Your task to perform on an android device: What's the weather? Image 0: 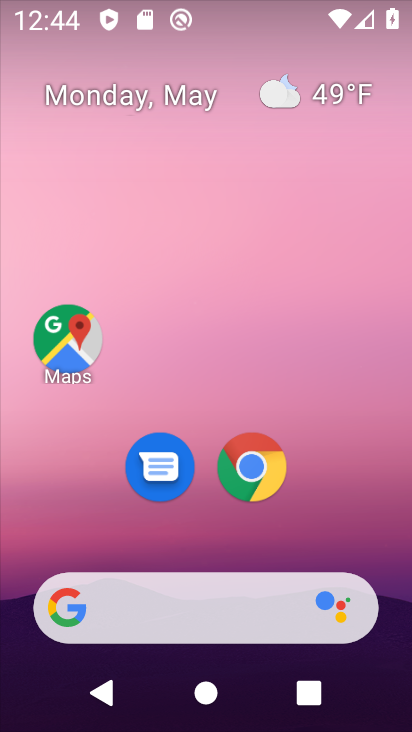
Step 0: press home button
Your task to perform on an android device: What's the weather? Image 1: 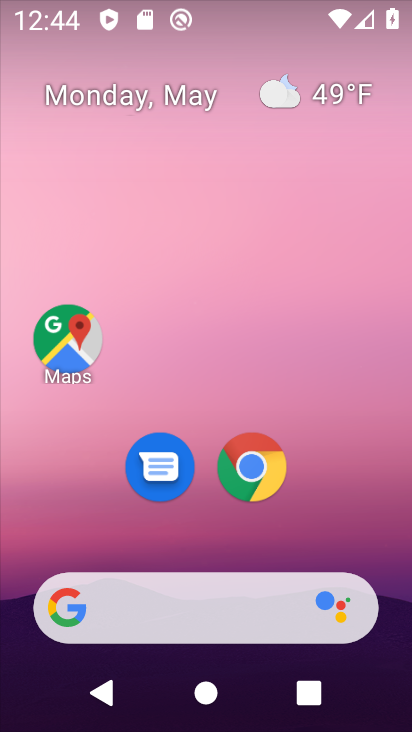
Step 1: drag from (353, 535) to (322, 51)
Your task to perform on an android device: What's the weather? Image 2: 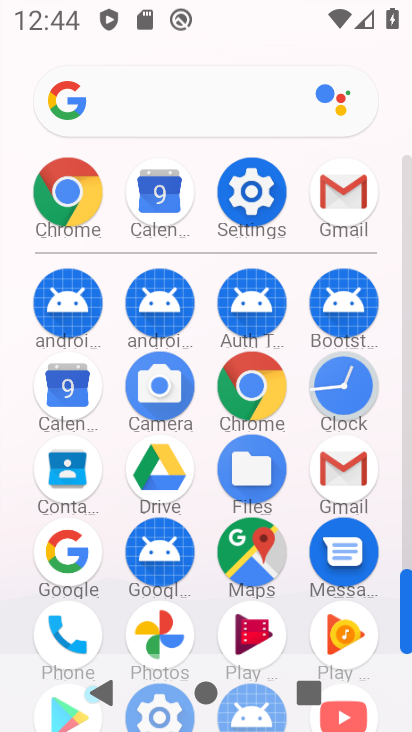
Step 2: click (77, 193)
Your task to perform on an android device: What's the weather? Image 3: 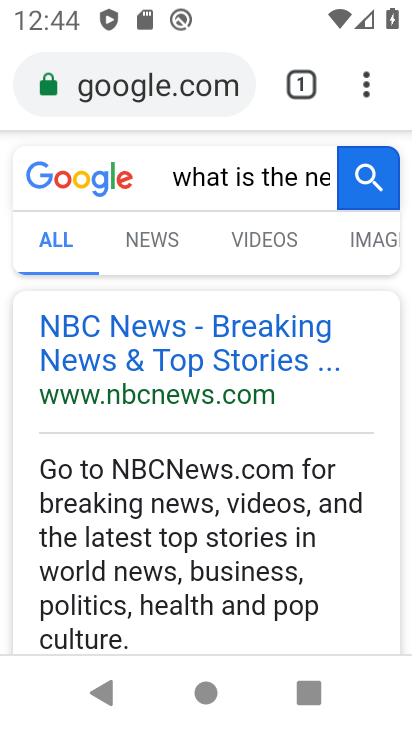
Step 3: click (201, 88)
Your task to perform on an android device: What's the weather? Image 4: 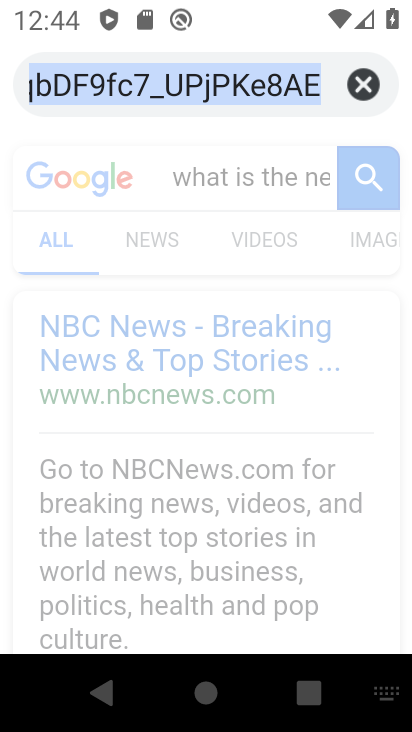
Step 4: click (365, 89)
Your task to perform on an android device: What's the weather? Image 5: 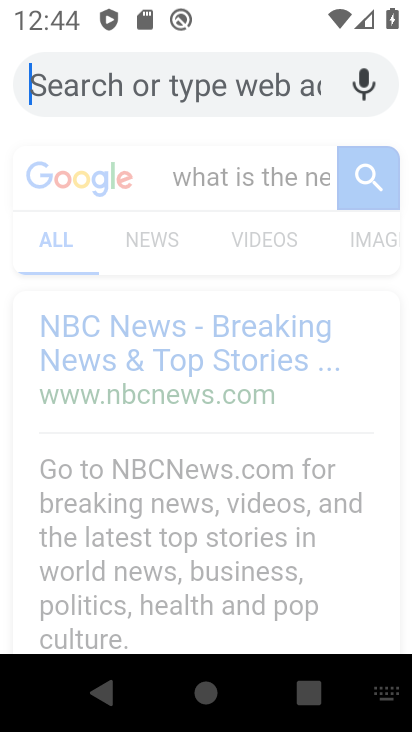
Step 5: type "what's the weather"
Your task to perform on an android device: What's the weather? Image 6: 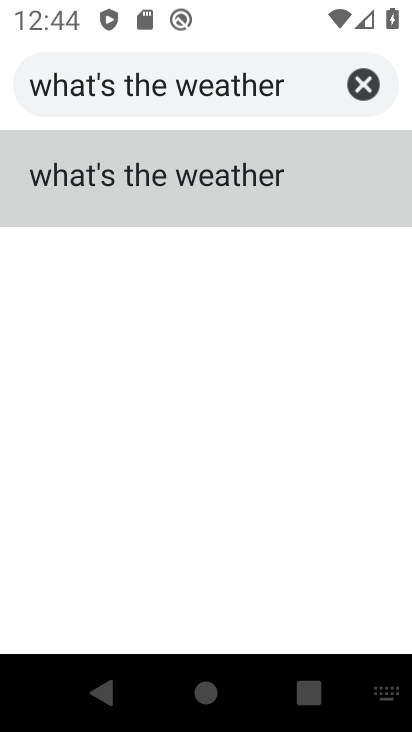
Step 6: click (229, 199)
Your task to perform on an android device: What's the weather? Image 7: 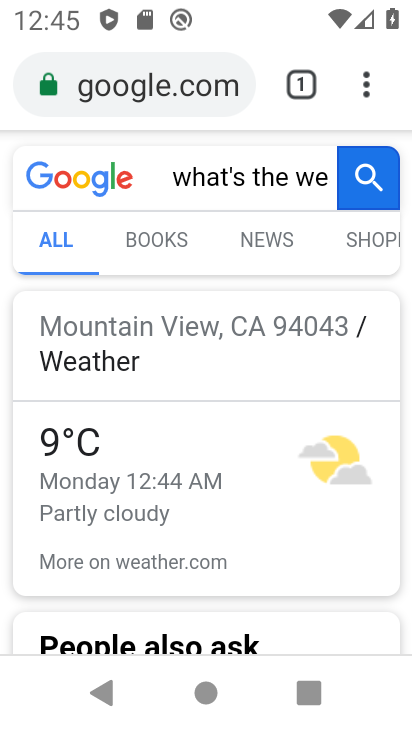
Step 7: task complete